Your task to perform on an android device: Go to CNN.com Image 0: 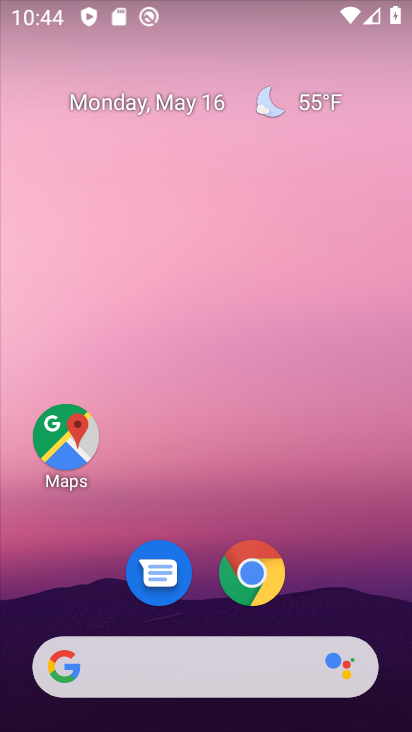
Step 0: drag from (141, 602) to (182, 189)
Your task to perform on an android device: Go to CNN.com Image 1: 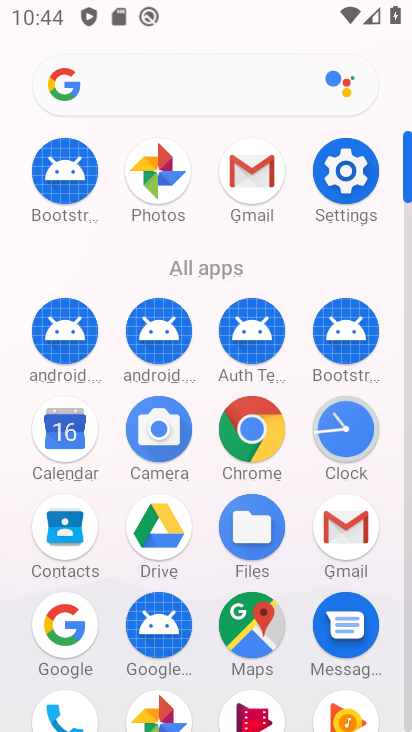
Step 1: click (68, 629)
Your task to perform on an android device: Go to CNN.com Image 2: 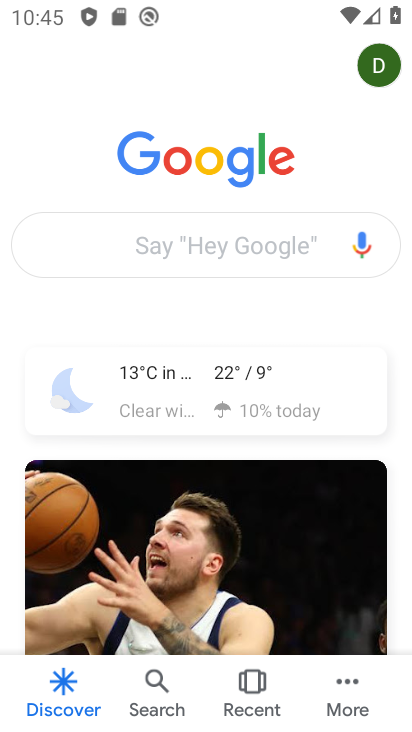
Step 2: click (185, 239)
Your task to perform on an android device: Go to CNN.com Image 3: 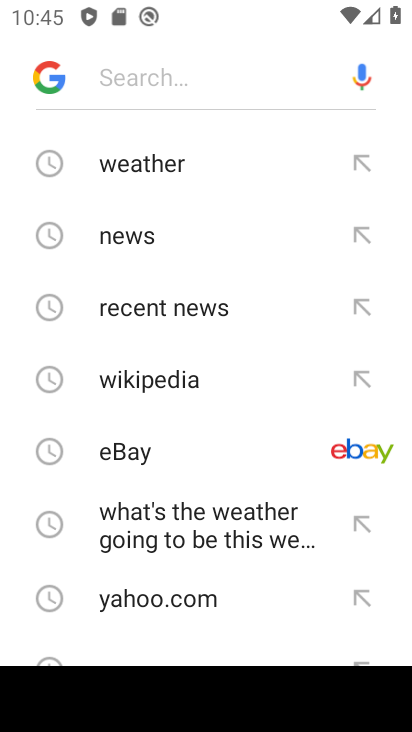
Step 3: drag from (162, 520) to (198, 314)
Your task to perform on an android device: Go to CNN.com Image 4: 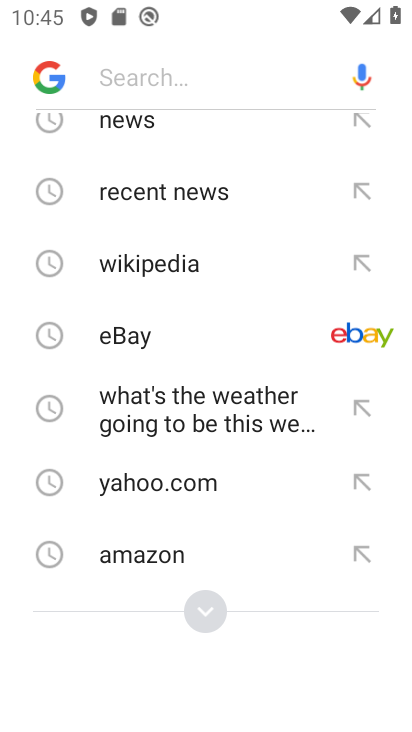
Step 4: click (203, 609)
Your task to perform on an android device: Go to CNN.com Image 5: 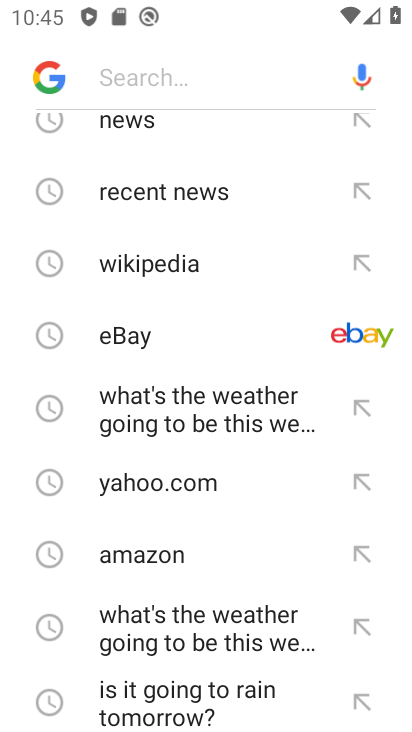
Step 5: drag from (188, 576) to (203, 351)
Your task to perform on an android device: Go to CNN.com Image 6: 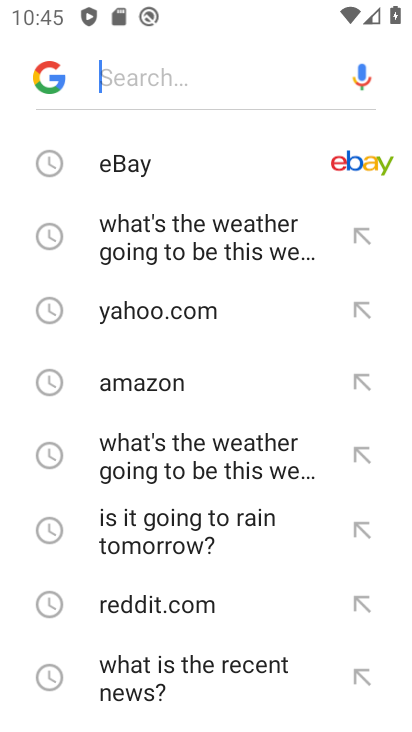
Step 6: drag from (165, 629) to (222, 306)
Your task to perform on an android device: Go to CNN.com Image 7: 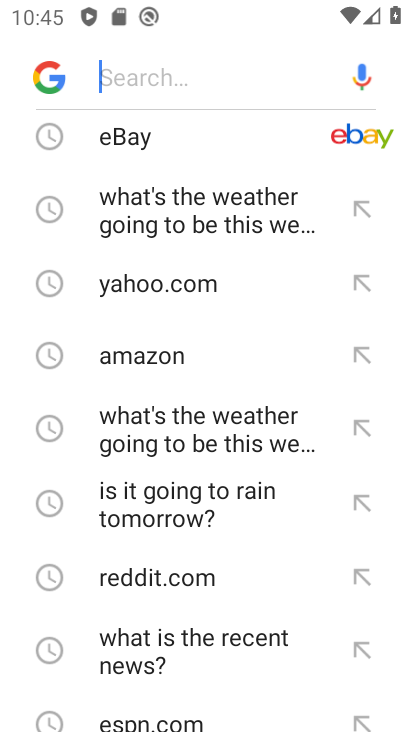
Step 7: drag from (179, 701) to (210, 400)
Your task to perform on an android device: Go to CNN.com Image 8: 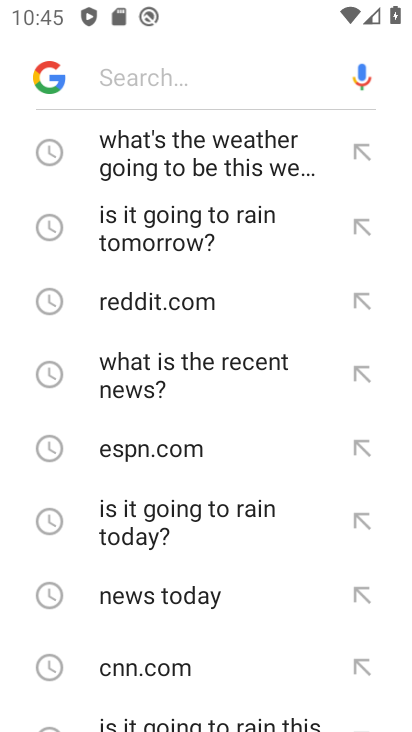
Step 8: click (165, 660)
Your task to perform on an android device: Go to CNN.com Image 9: 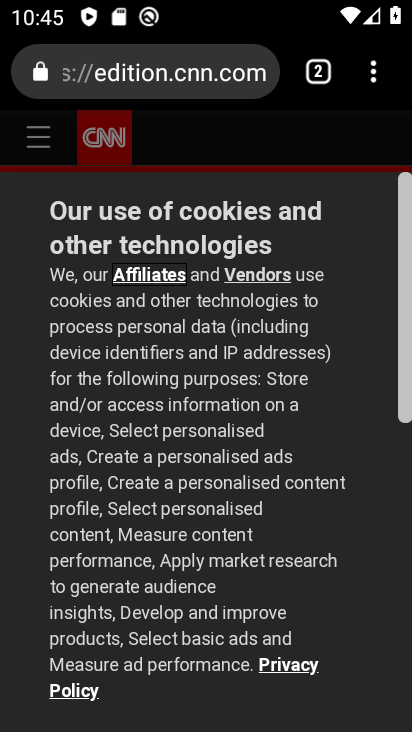
Step 9: task complete